Your task to perform on an android device: Turn off the flashlight Image 0: 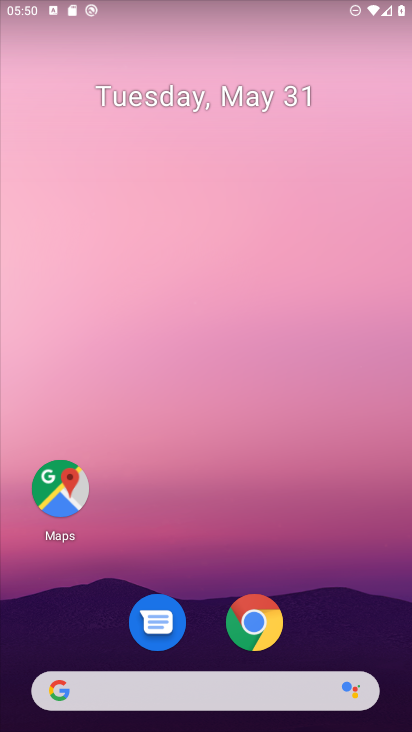
Step 0: drag from (216, 681) to (258, 140)
Your task to perform on an android device: Turn off the flashlight Image 1: 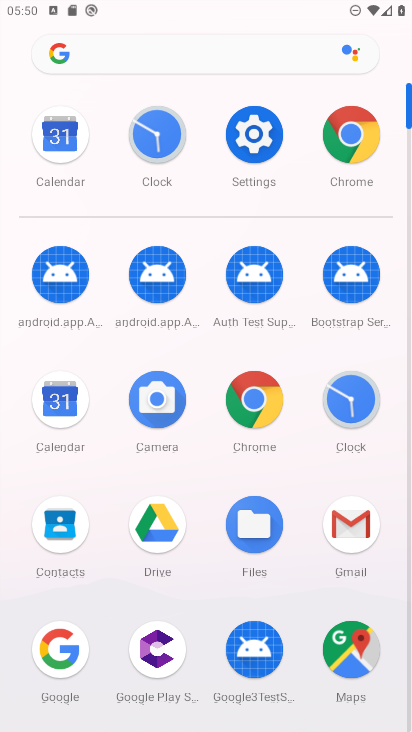
Step 1: task complete